Your task to perform on an android device: Open my contact list Image 0: 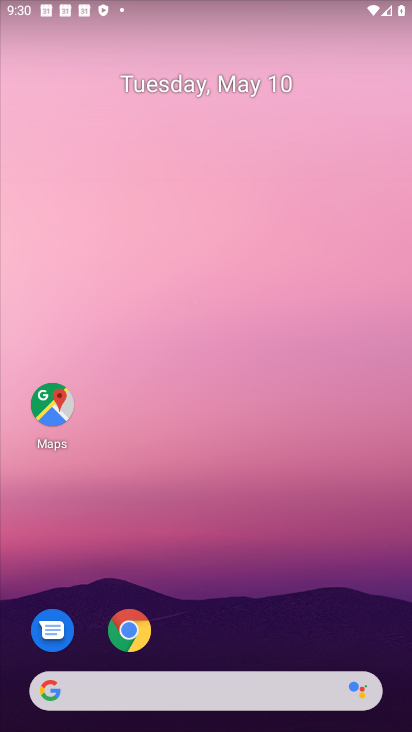
Step 0: drag from (169, 708) to (125, 85)
Your task to perform on an android device: Open my contact list Image 1: 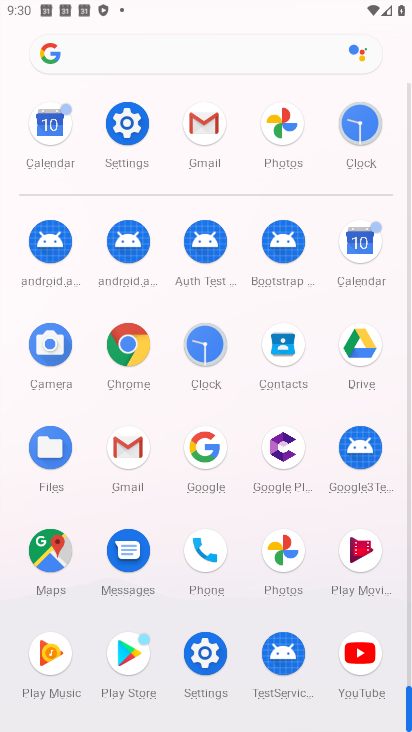
Step 1: click (291, 340)
Your task to perform on an android device: Open my contact list Image 2: 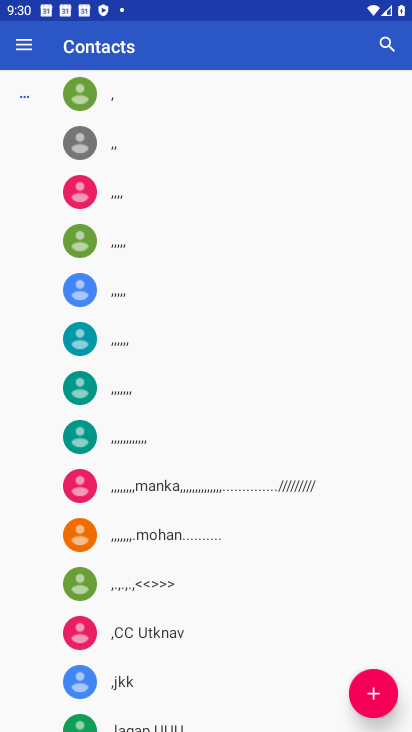
Step 2: task complete